Your task to perform on an android device: When is my next appointment? Image 0: 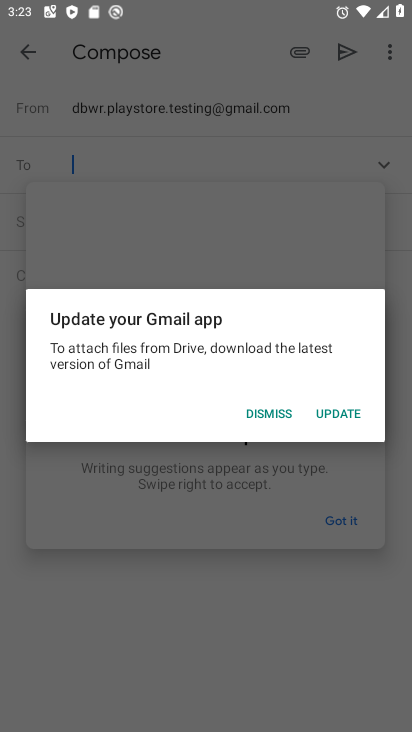
Step 0: press home button
Your task to perform on an android device: When is my next appointment? Image 1: 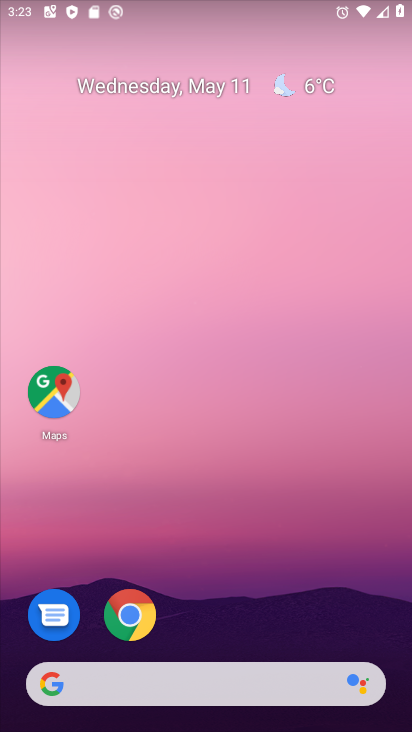
Step 1: drag from (269, 602) to (276, 83)
Your task to perform on an android device: When is my next appointment? Image 2: 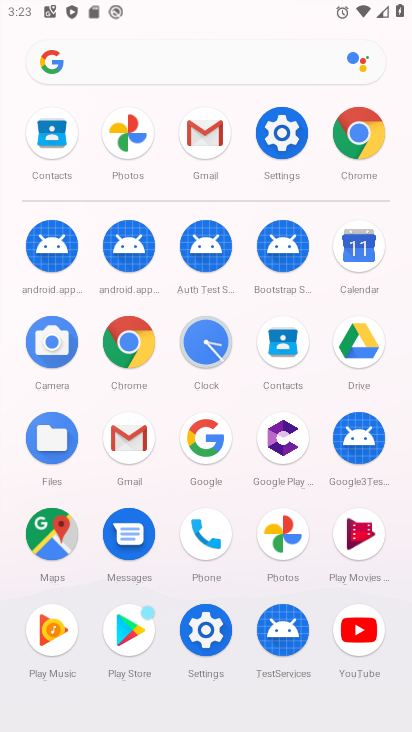
Step 2: click (359, 248)
Your task to perform on an android device: When is my next appointment? Image 3: 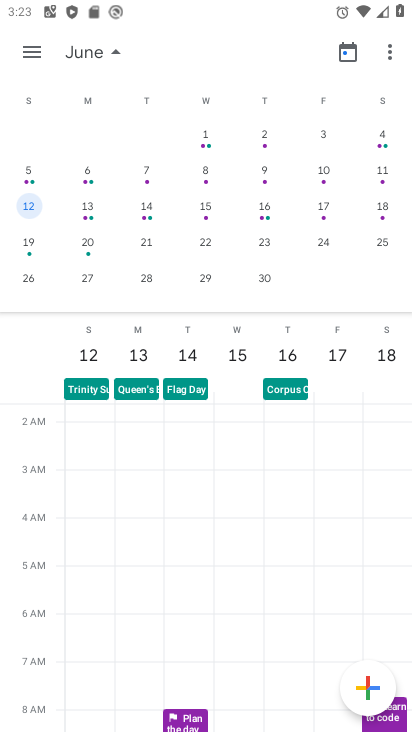
Step 3: click (33, 200)
Your task to perform on an android device: When is my next appointment? Image 4: 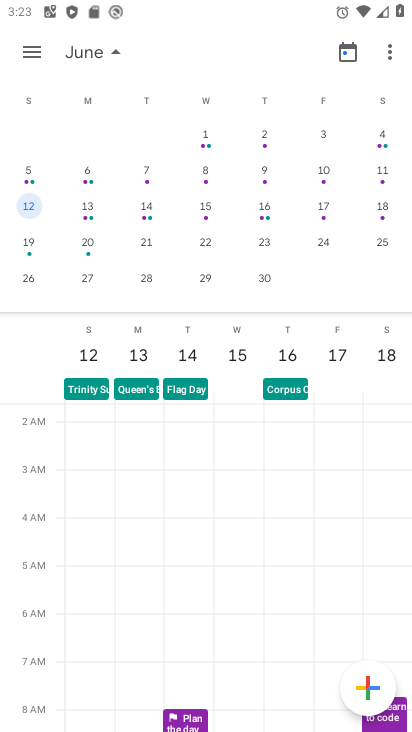
Step 4: click (33, 48)
Your task to perform on an android device: When is my next appointment? Image 5: 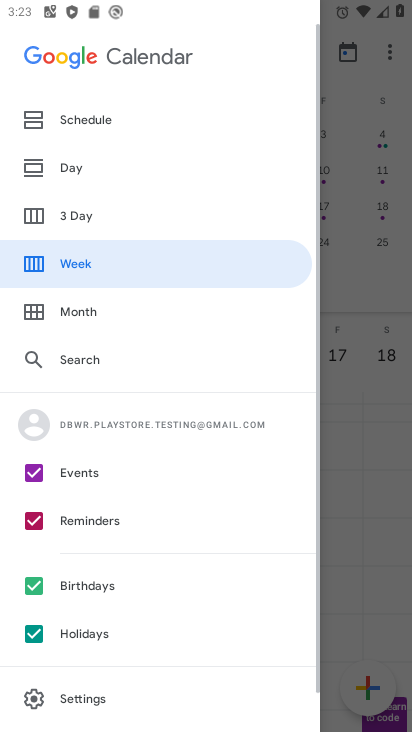
Step 5: click (78, 174)
Your task to perform on an android device: When is my next appointment? Image 6: 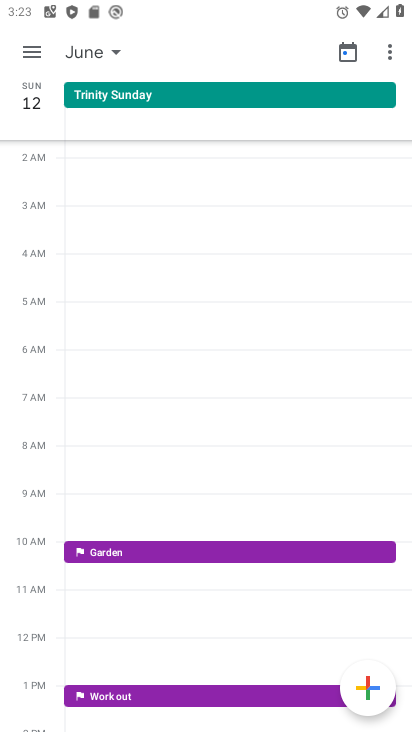
Step 6: click (101, 61)
Your task to perform on an android device: When is my next appointment? Image 7: 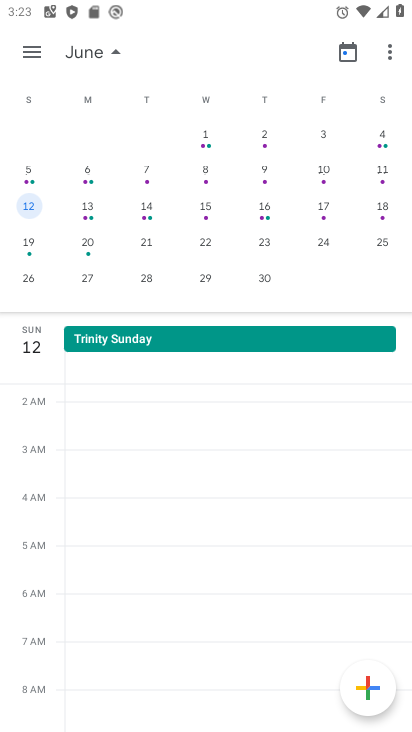
Step 7: drag from (32, 260) to (395, 247)
Your task to perform on an android device: When is my next appointment? Image 8: 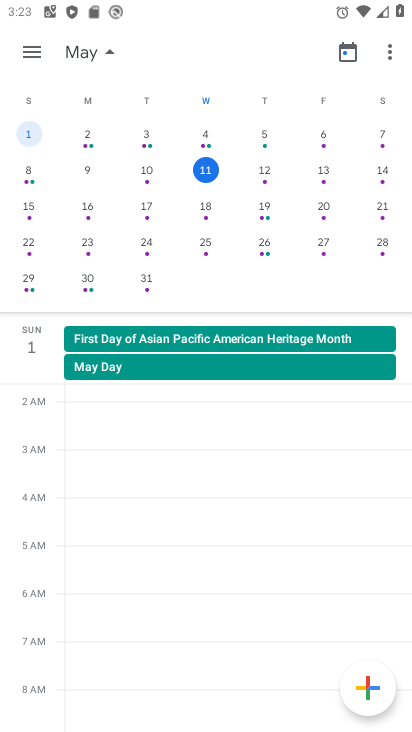
Step 8: click (195, 175)
Your task to perform on an android device: When is my next appointment? Image 9: 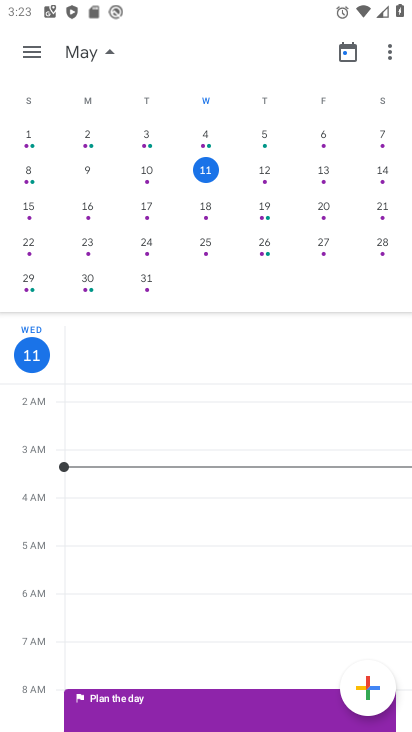
Step 9: task complete